Your task to perform on an android device: toggle show notifications on the lock screen Image 0: 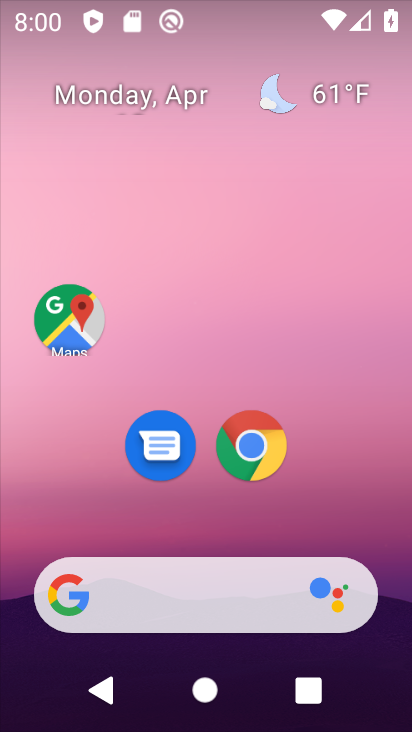
Step 0: drag from (347, 400) to (352, 100)
Your task to perform on an android device: toggle show notifications on the lock screen Image 1: 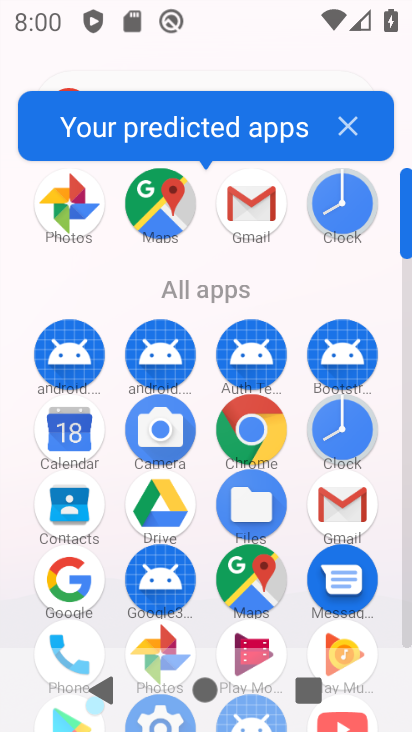
Step 1: drag from (388, 468) to (378, 210)
Your task to perform on an android device: toggle show notifications on the lock screen Image 2: 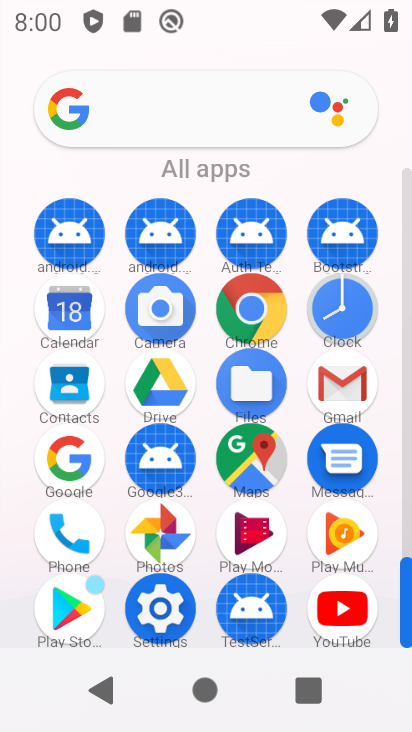
Step 2: click (168, 612)
Your task to perform on an android device: toggle show notifications on the lock screen Image 3: 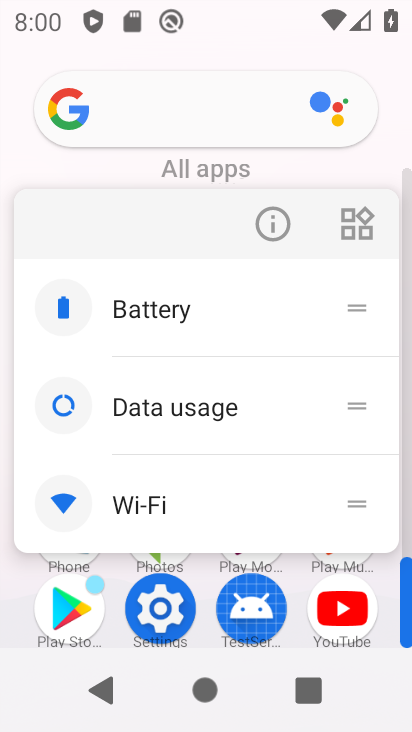
Step 3: click (168, 612)
Your task to perform on an android device: toggle show notifications on the lock screen Image 4: 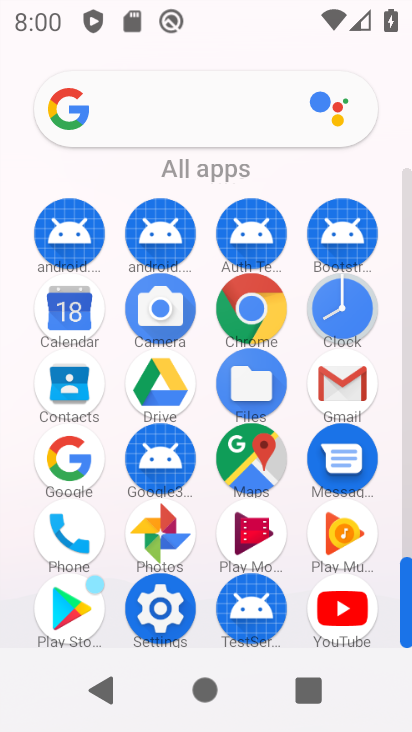
Step 4: click (167, 621)
Your task to perform on an android device: toggle show notifications on the lock screen Image 5: 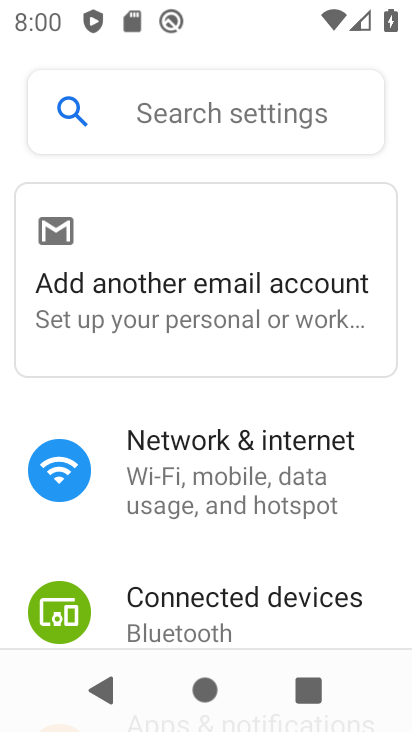
Step 5: drag from (320, 546) to (336, 221)
Your task to perform on an android device: toggle show notifications on the lock screen Image 6: 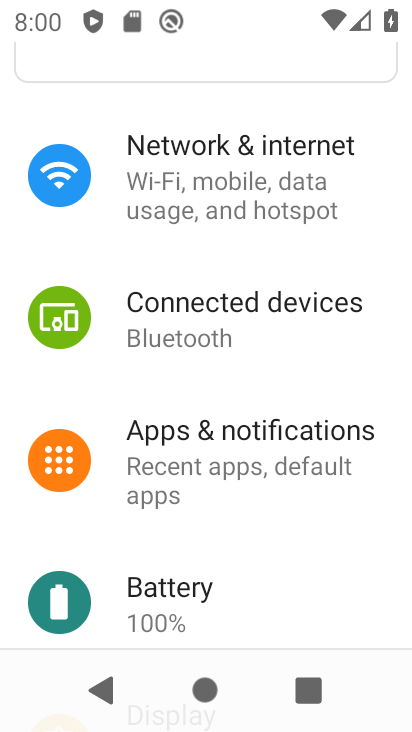
Step 6: click (245, 460)
Your task to perform on an android device: toggle show notifications on the lock screen Image 7: 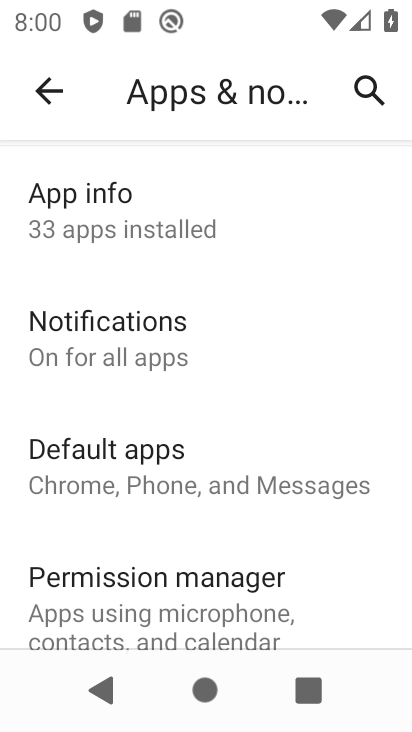
Step 7: click (100, 343)
Your task to perform on an android device: toggle show notifications on the lock screen Image 8: 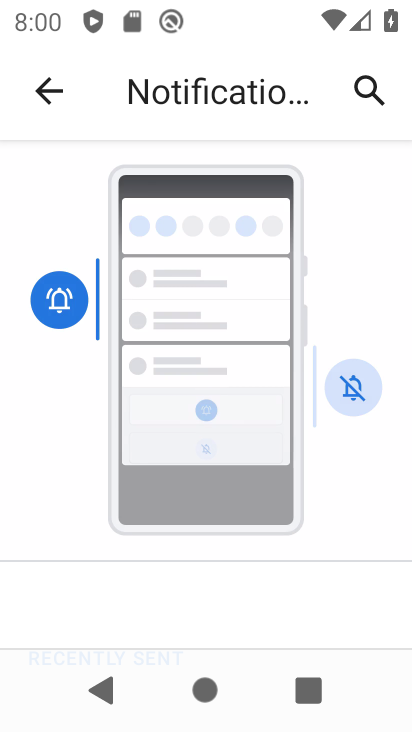
Step 8: drag from (352, 549) to (394, 176)
Your task to perform on an android device: toggle show notifications on the lock screen Image 9: 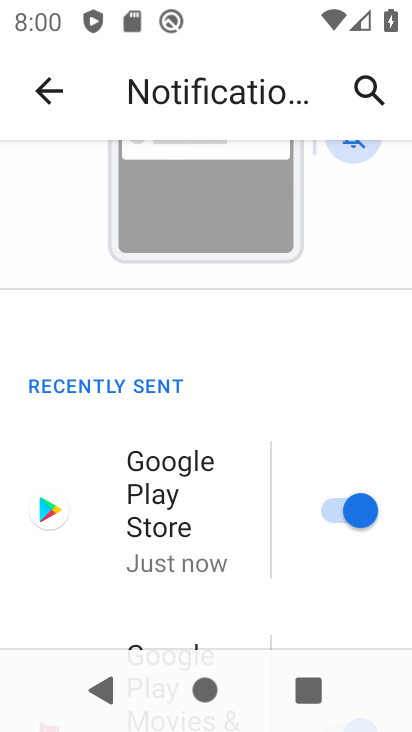
Step 9: drag from (279, 575) to (344, 141)
Your task to perform on an android device: toggle show notifications on the lock screen Image 10: 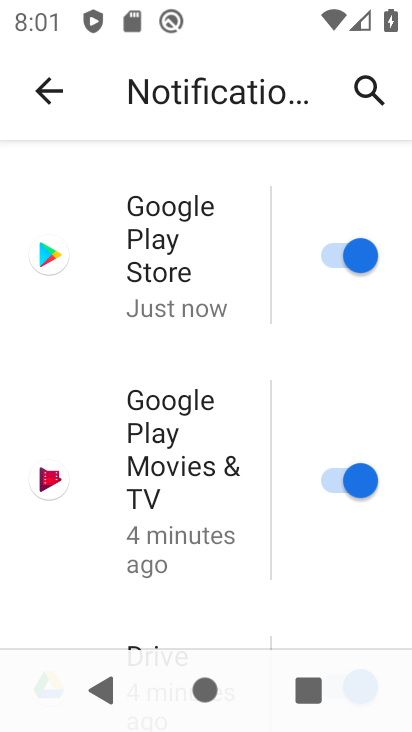
Step 10: drag from (73, 593) to (288, 164)
Your task to perform on an android device: toggle show notifications on the lock screen Image 11: 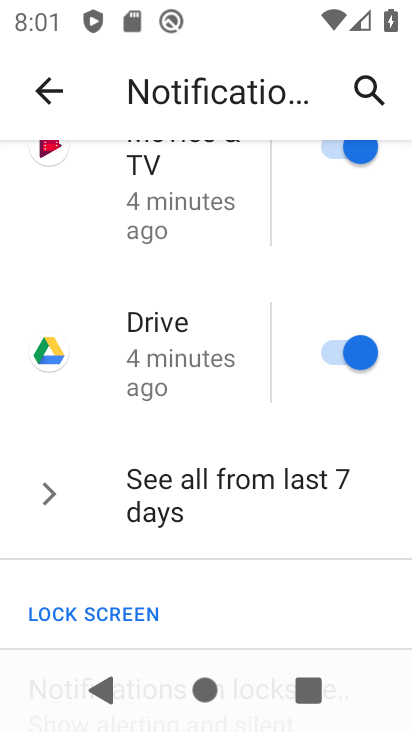
Step 11: drag from (172, 562) to (257, 181)
Your task to perform on an android device: toggle show notifications on the lock screen Image 12: 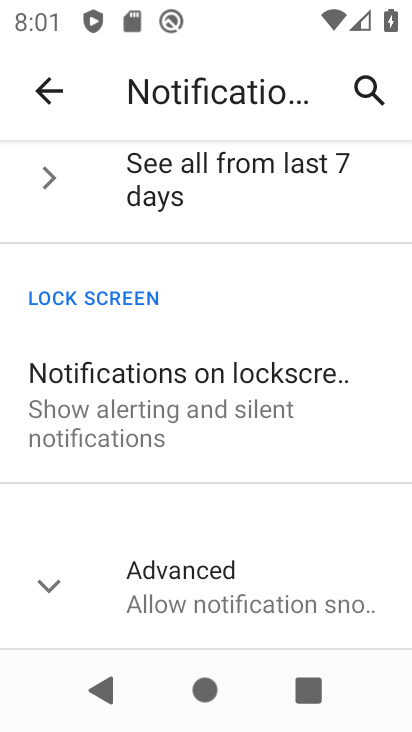
Step 12: click (195, 405)
Your task to perform on an android device: toggle show notifications on the lock screen Image 13: 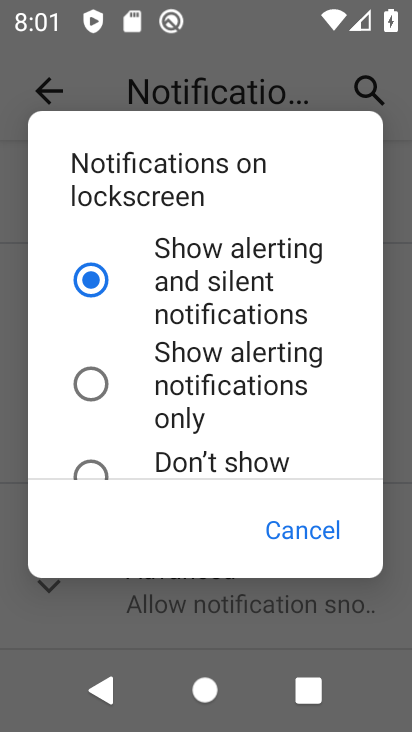
Step 13: click (100, 466)
Your task to perform on an android device: toggle show notifications on the lock screen Image 14: 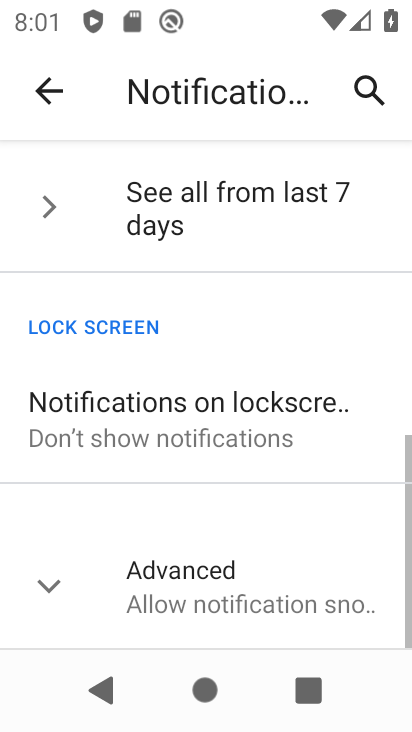
Step 14: task complete